Your task to perform on an android device: turn off priority inbox in the gmail app Image 0: 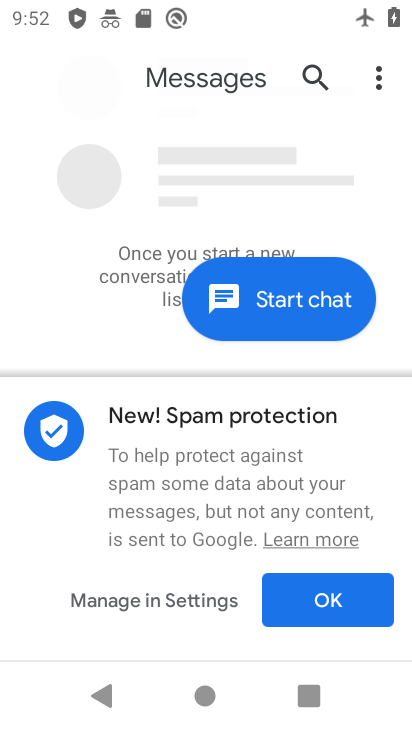
Step 0: press home button
Your task to perform on an android device: turn off priority inbox in the gmail app Image 1: 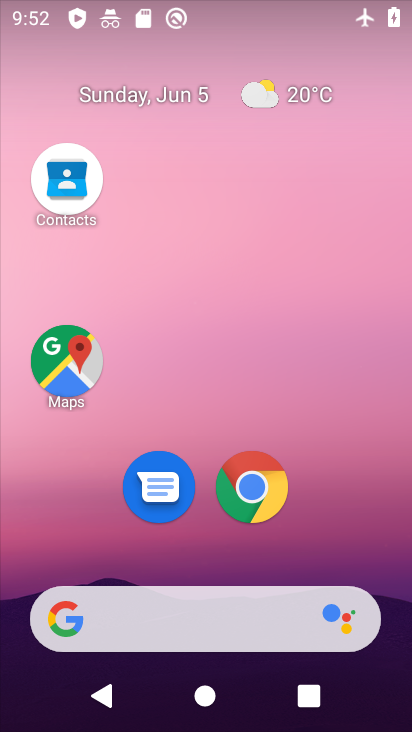
Step 1: drag from (254, 624) to (256, 118)
Your task to perform on an android device: turn off priority inbox in the gmail app Image 2: 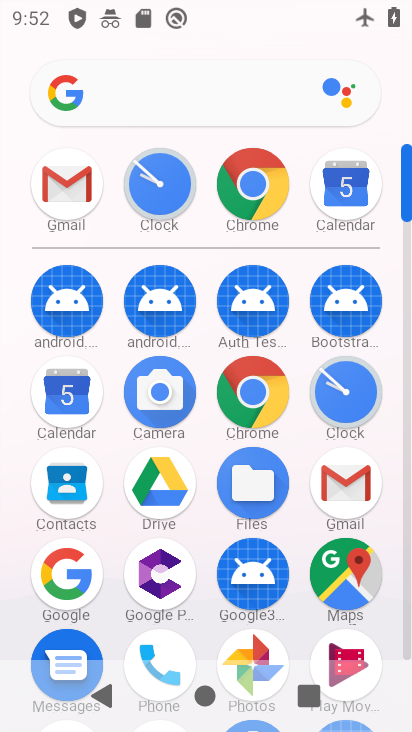
Step 2: click (354, 496)
Your task to perform on an android device: turn off priority inbox in the gmail app Image 3: 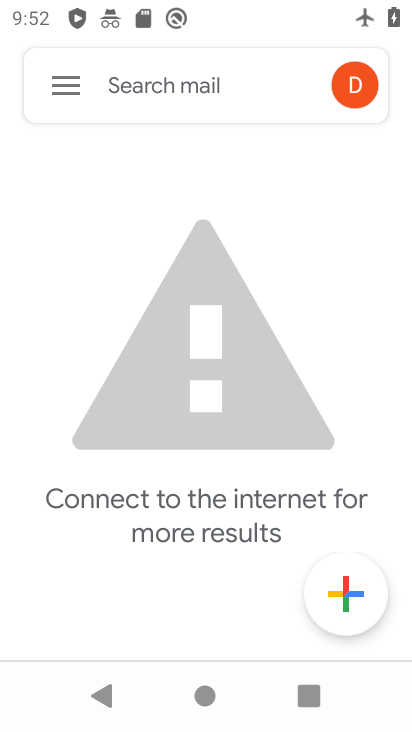
Step 3: click (72, 82)
Your task to perform on an android device: turn off priority inbox in the gmail app Image 4: 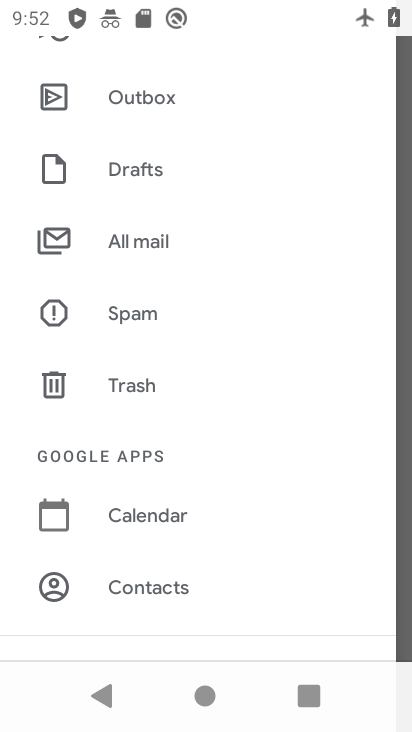
Step 4: drag from (198, 473) to (274, 95)
Your task to perform on an android device: turn off priority inbox in the gmail app Image 5: 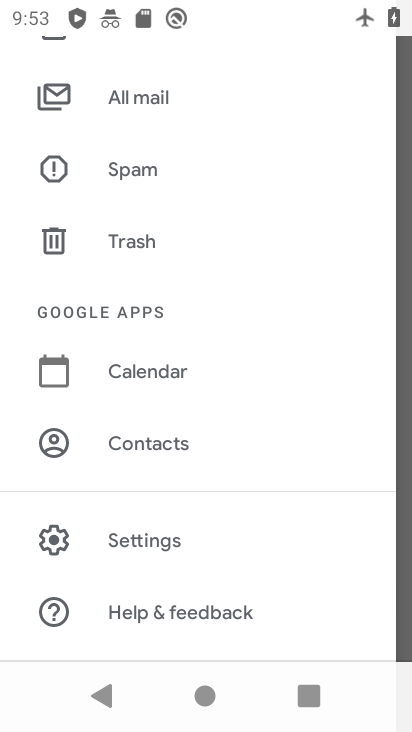
Step 5: click (194, 538)
Your task to perform on an android device: turn off priority inbox in the gmail app Image 6: 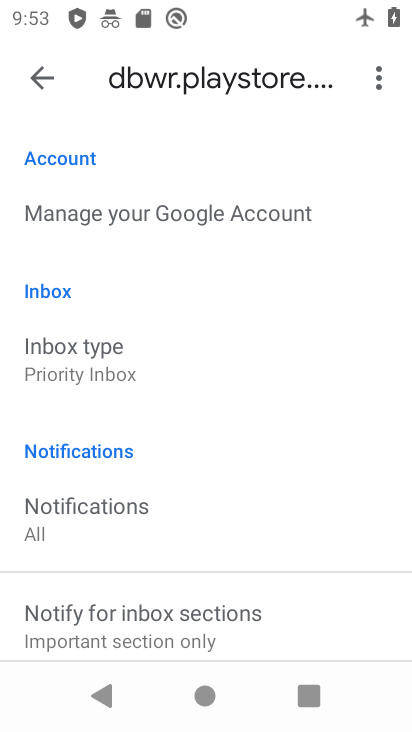
Step 6: click (179, 355)
Your task to perform on an android device: turn off priority inbox in the gmail app Image 7: 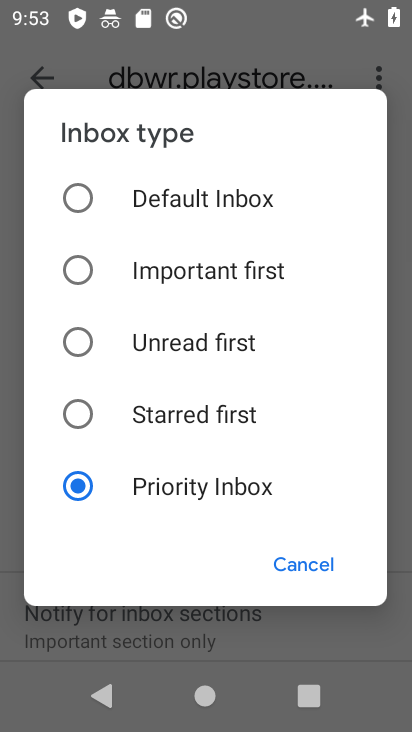
Step 7: click (173, 354)
Your task to perform on an android device: turn off priority inbox in the gmail app Image 8: 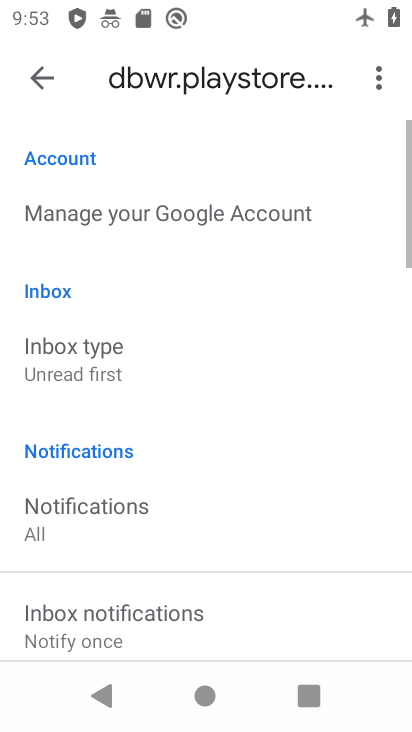
Step 8: task complete